Your task to perform on an android device: Clear the shopping cart on amazon.com. Add usb-c to usb-a to the cart on amazon.com Image 0: 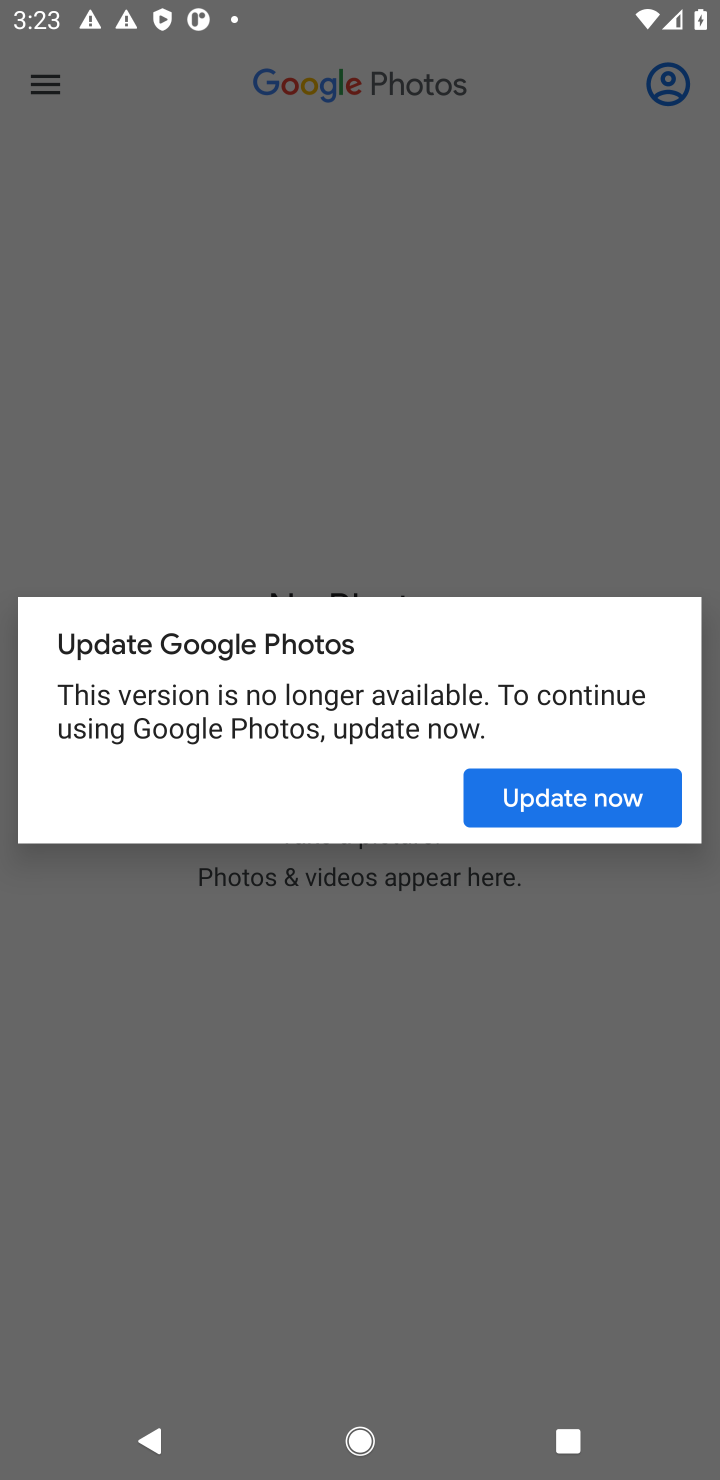
Step 0: press home button
Your task to perform on an android device: Clear the shopping cart on amazon.com. Add usb-c to usb-a to the cart on amazon.com Image 1: 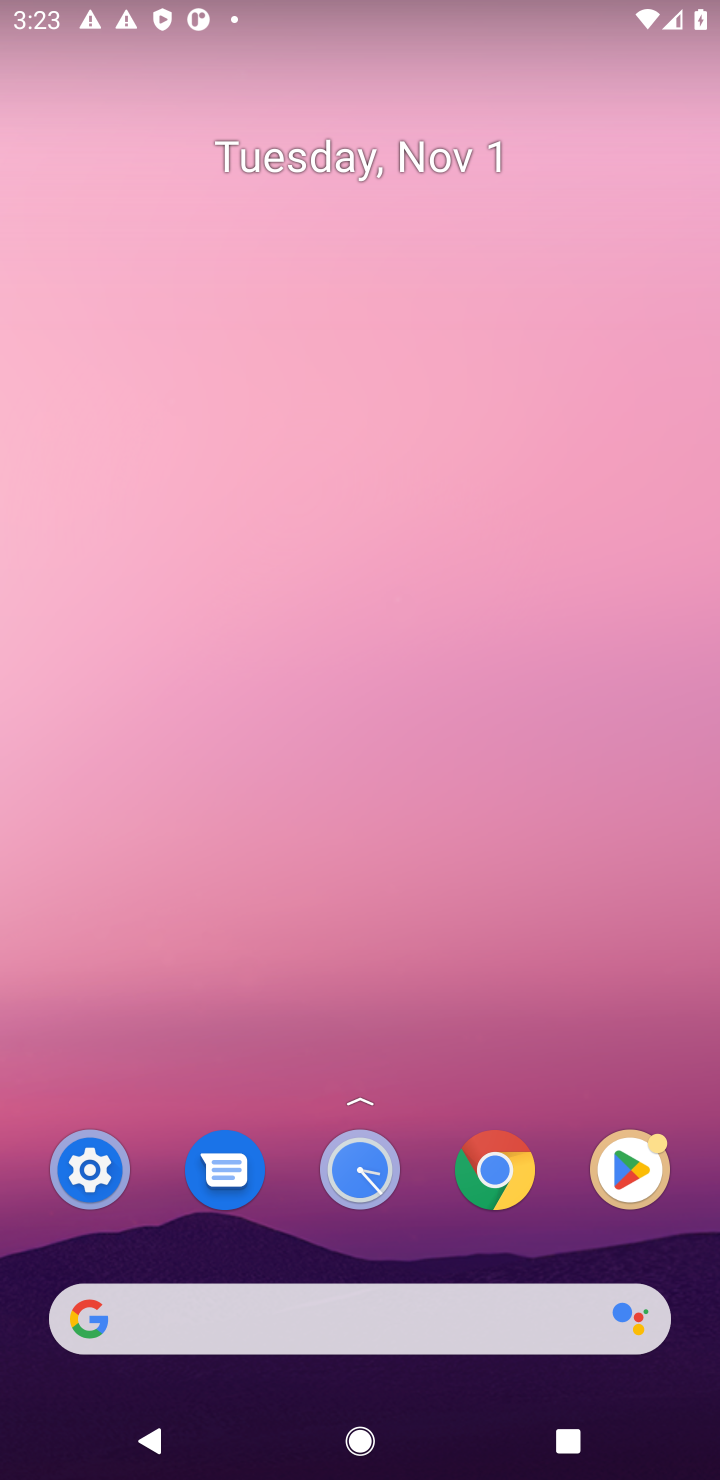
Step 1: drag from (428, 1407) to (591, 182)
Your task to perform on an android device: Clear the shopping cart on amazon.com. Add usb-c to usb-a to the cart on amazon.com Image 2: 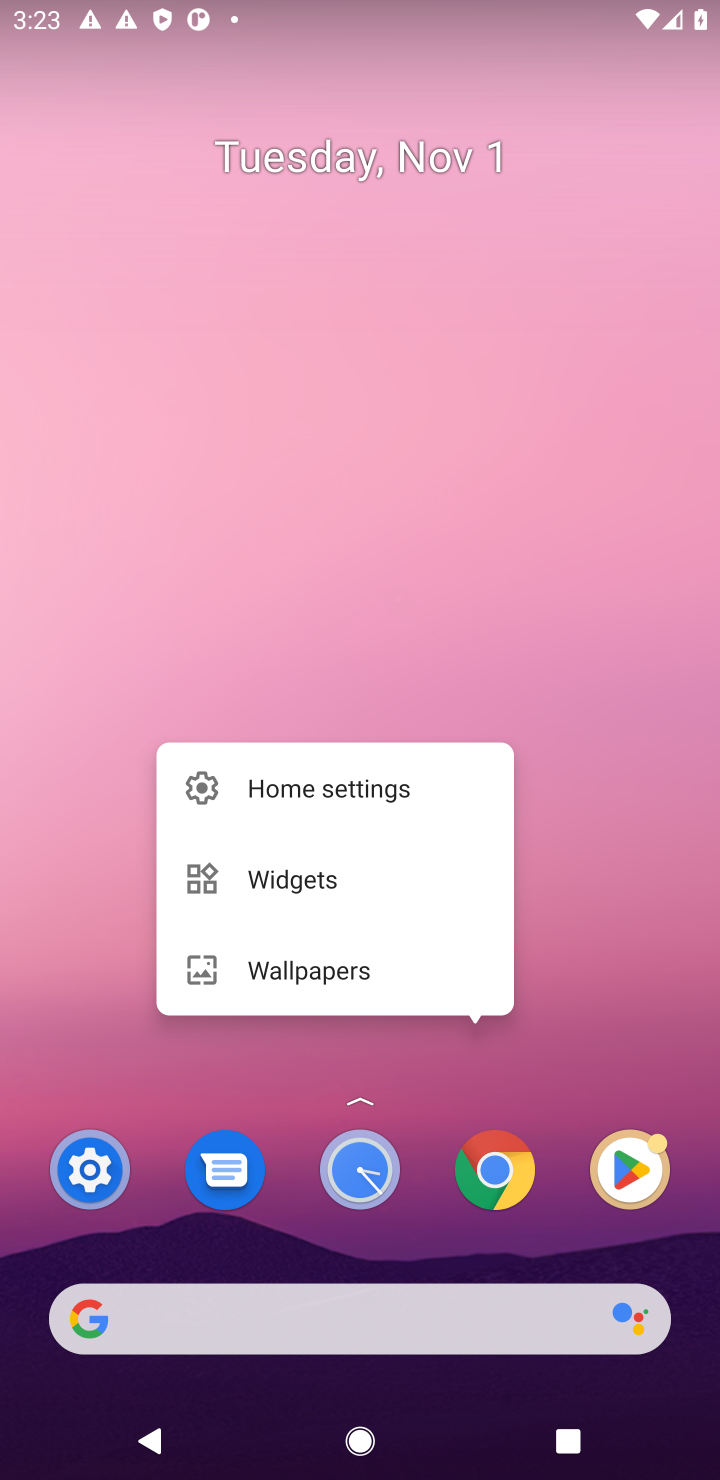
Step 2: click (626, 841)
Your task to perform on an android device: Clear the shopping cart on amazon.com. Add usb-c to usb-a to the cart on amazon.com Image 3: 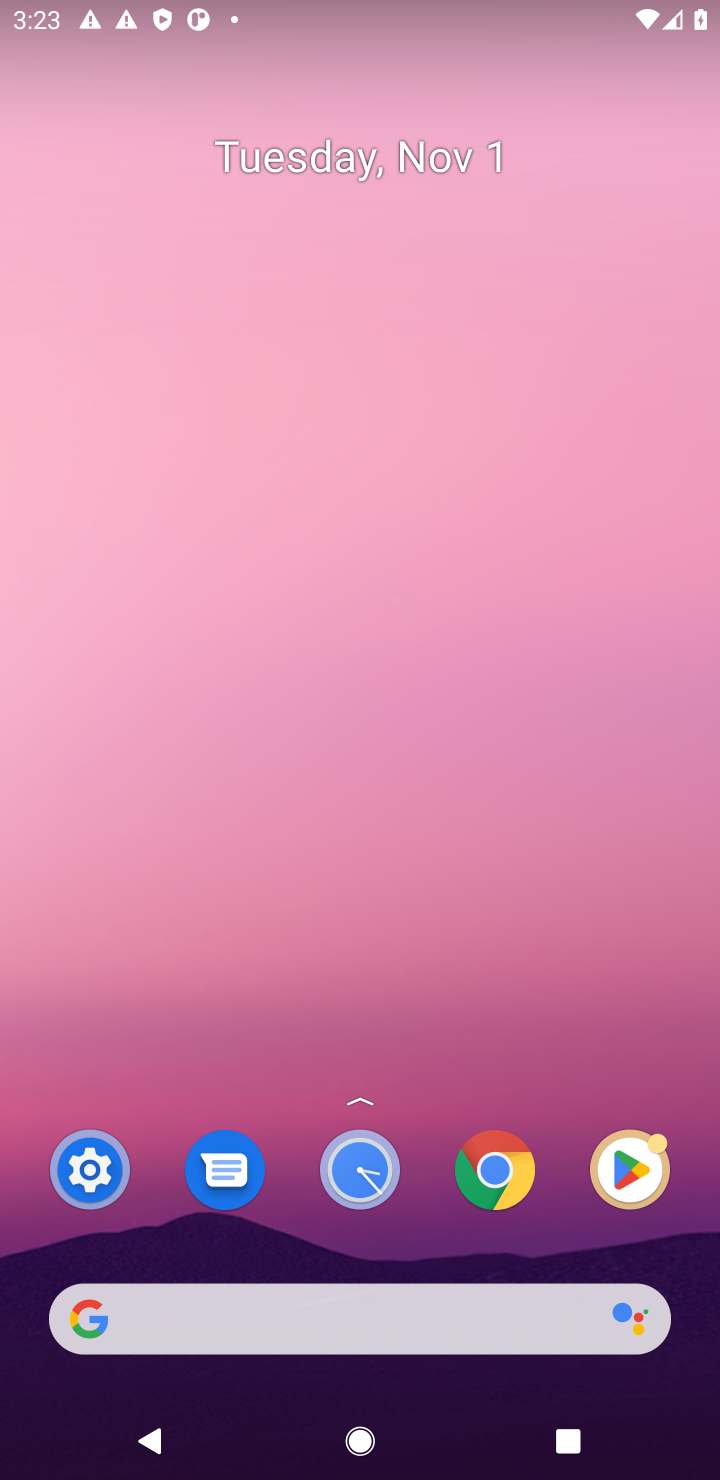
Step 3: drag from (472, 1397) to (456, 150)
Your task to perform on an android device: Clear the shopping cart on amazon.com. Add usb-c to usb-a to the cart on amazon.com Image 4: 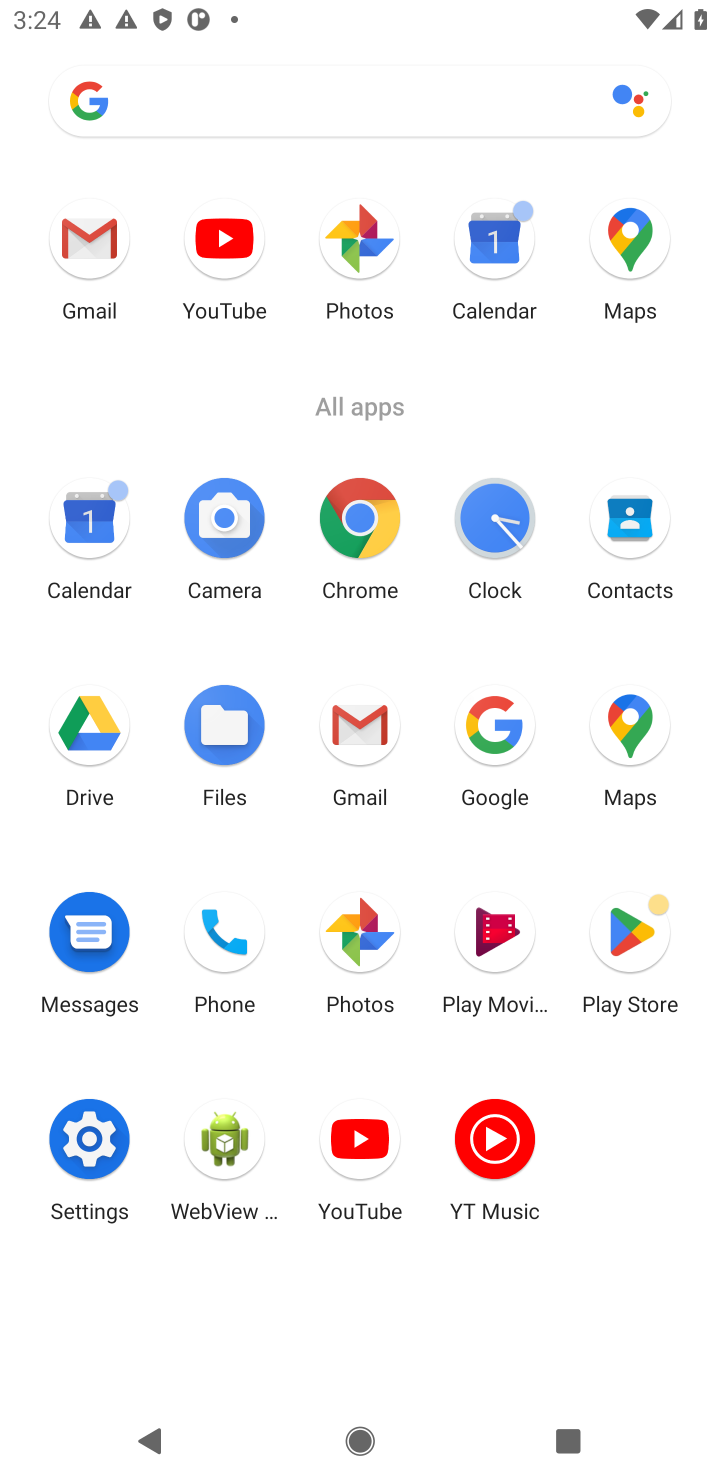
Step 4: click (364, 524)
Your task to perform on an android device: Clear the shopping cart on amazon.com. Add usb-c to usb-a to the cart on amazon.com Image 5: 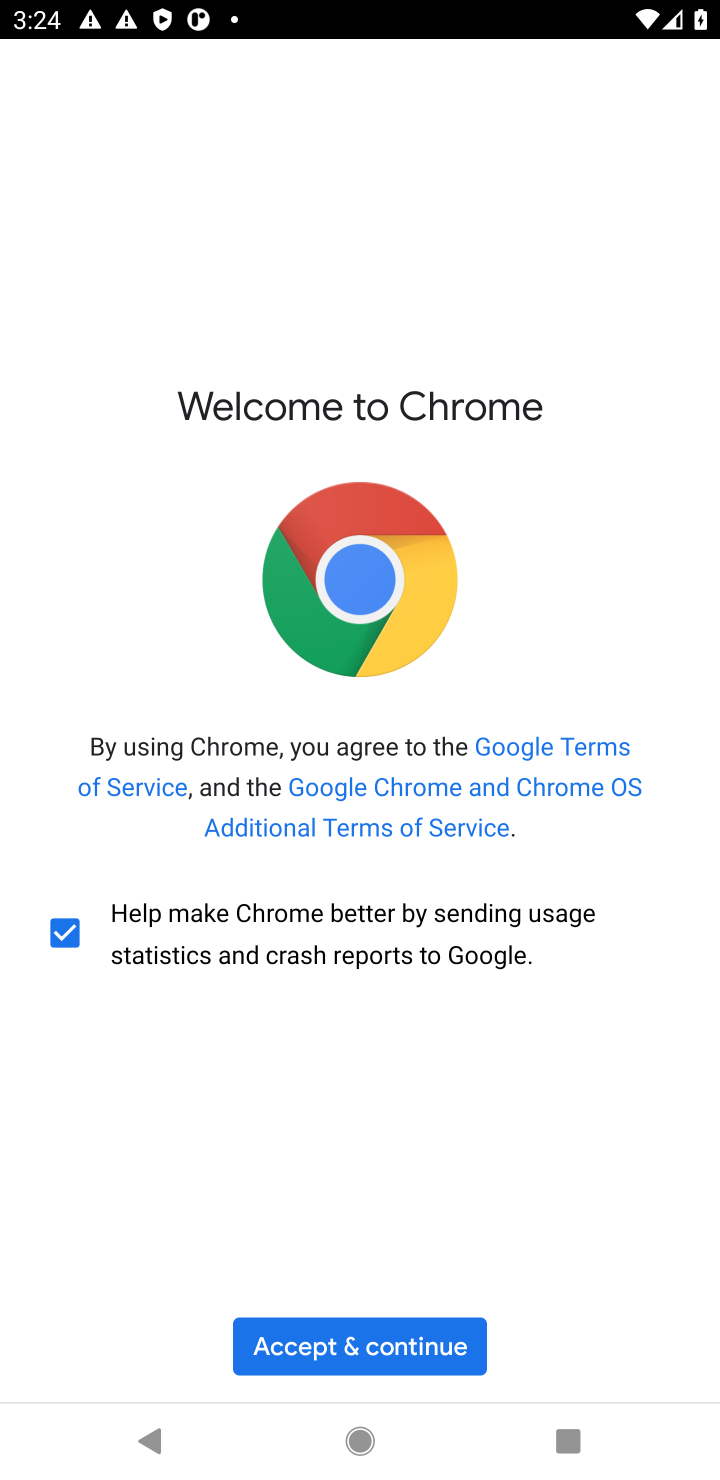
Step 5: click (342, 1341)
Your task to perform on an android device: Clear the shopping cart on amazon.com. Add usb-c to usb-a to the cart on amazon.com Image 6: 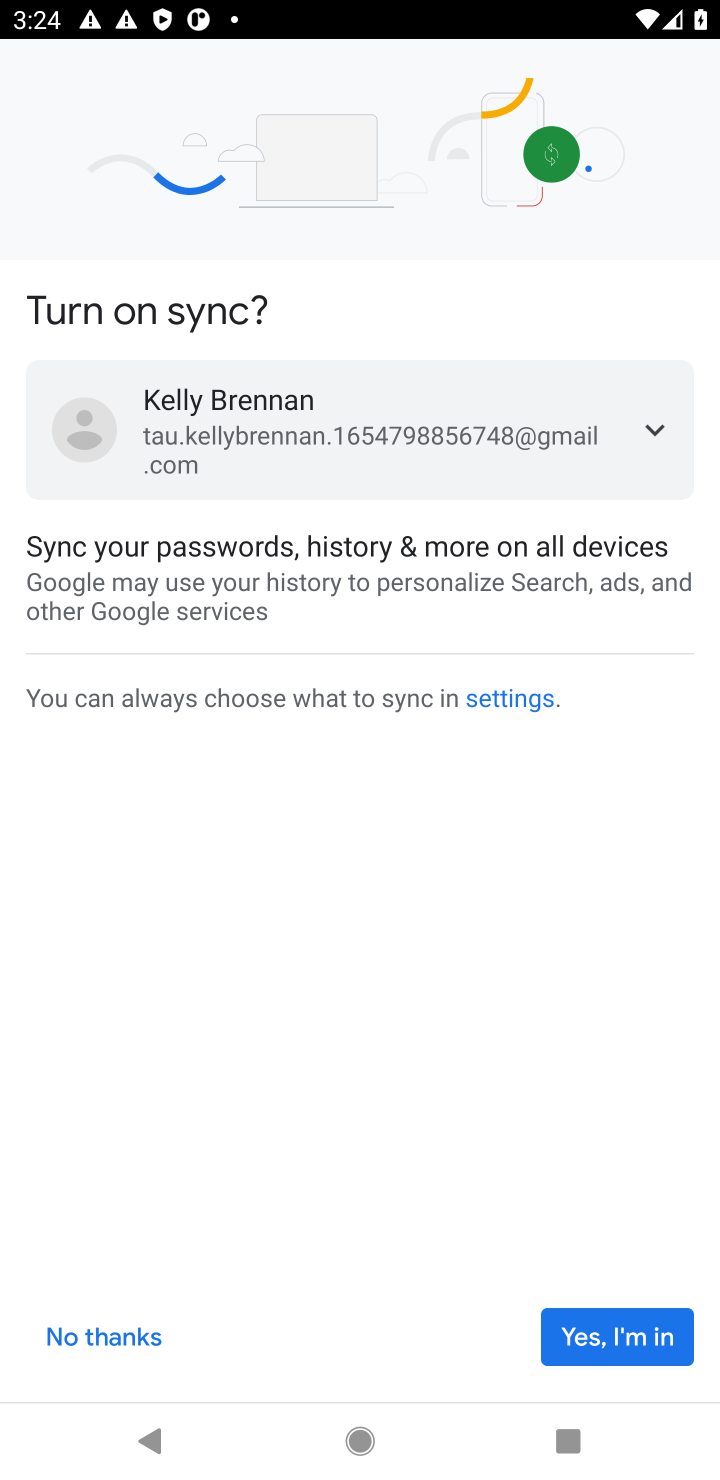
Step 6: click (584, 1327)
Your task to perform on an android device: Clear the shopping cart on amazon.com. Add usb-c to usb-a to the cart on amazon.com Image 7: 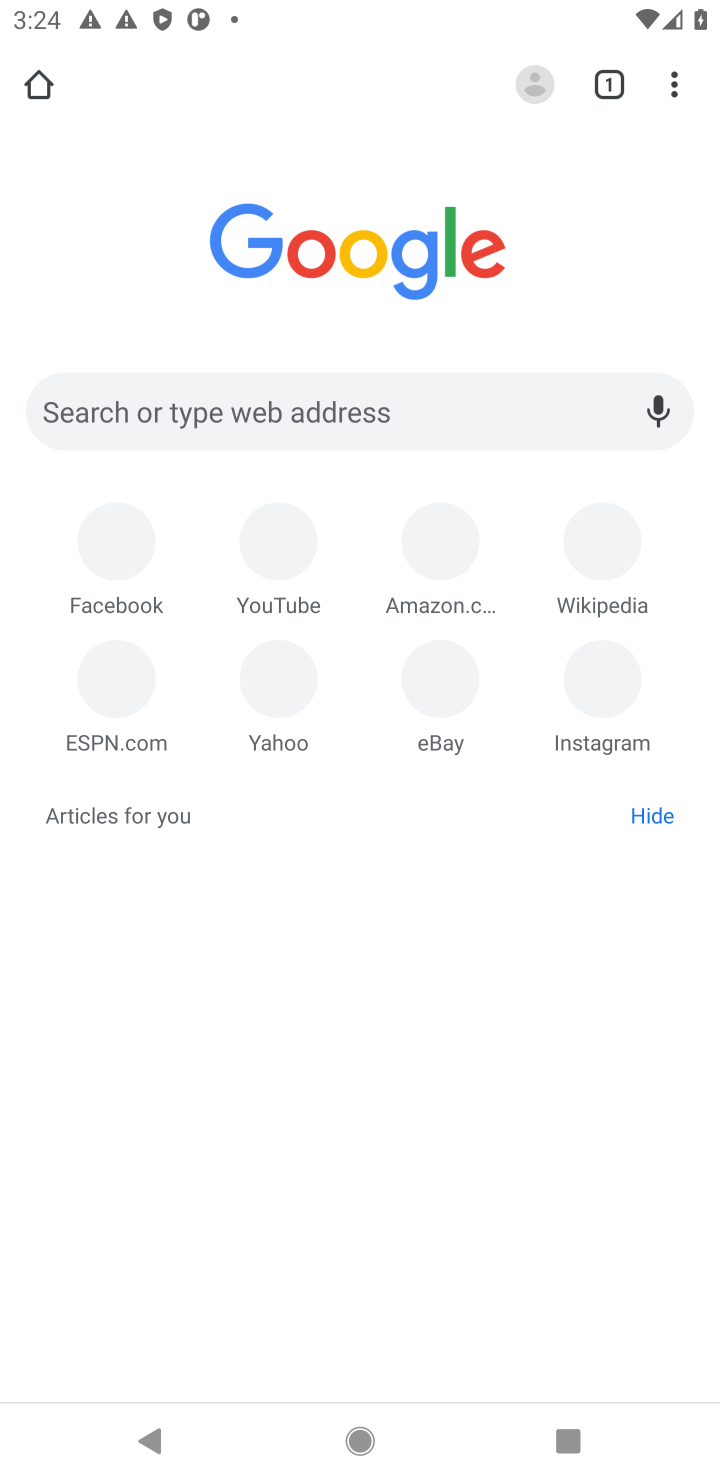
Step 7: click (281, 88)
Your task to perform on an android device: Clear the shopping cart on amazon.com. Add usb-c to usb-a to the cart on amazon.com Image 8: 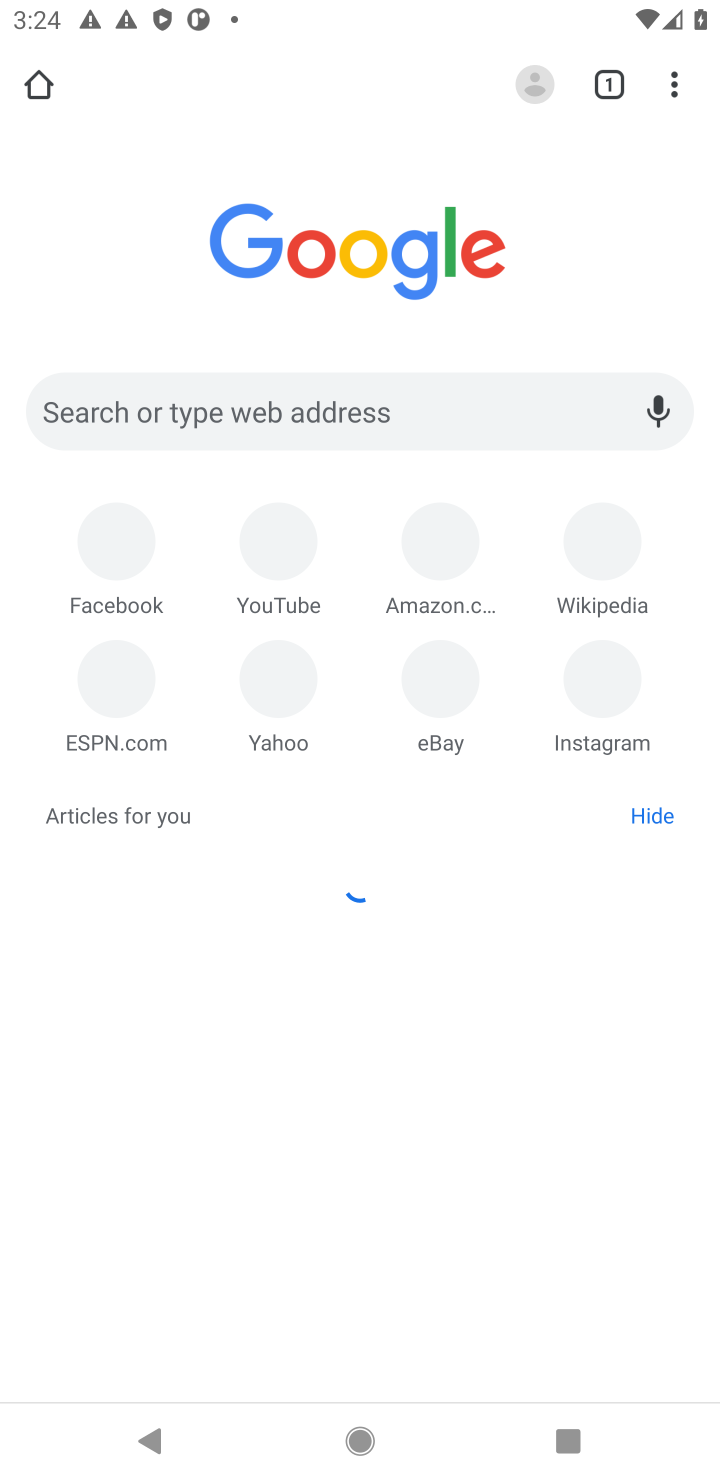
Step 8: click (405, 396)
Your task to perform on an android device: Clear the shopping cart on amazon.com. Add usb-c to usb-a to the cart on amazon.com Image 9: 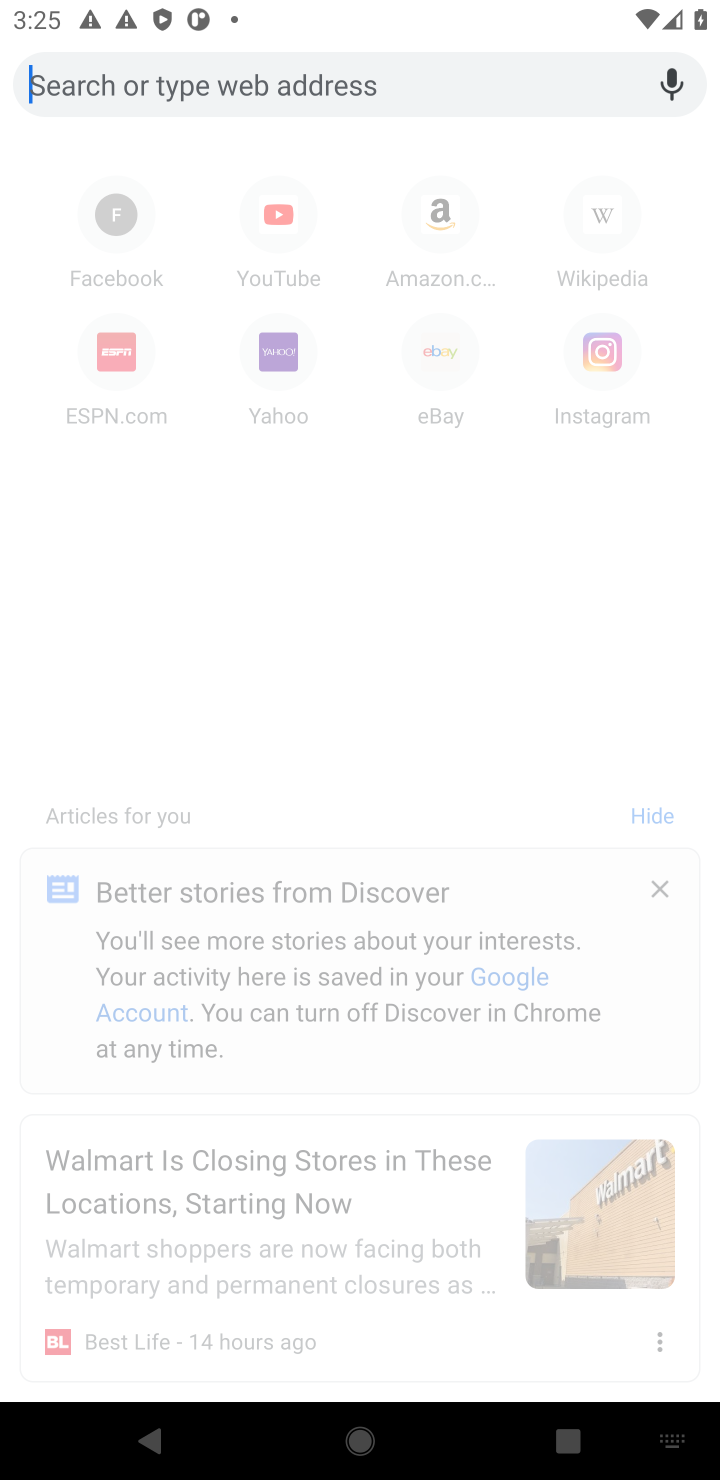
Step 9: type "amazon.com."
Your task to perform on an android device: Clear the shopping cart on amazon.com. Add usb-c to usb-a to the cart on amazon.com Image 10: 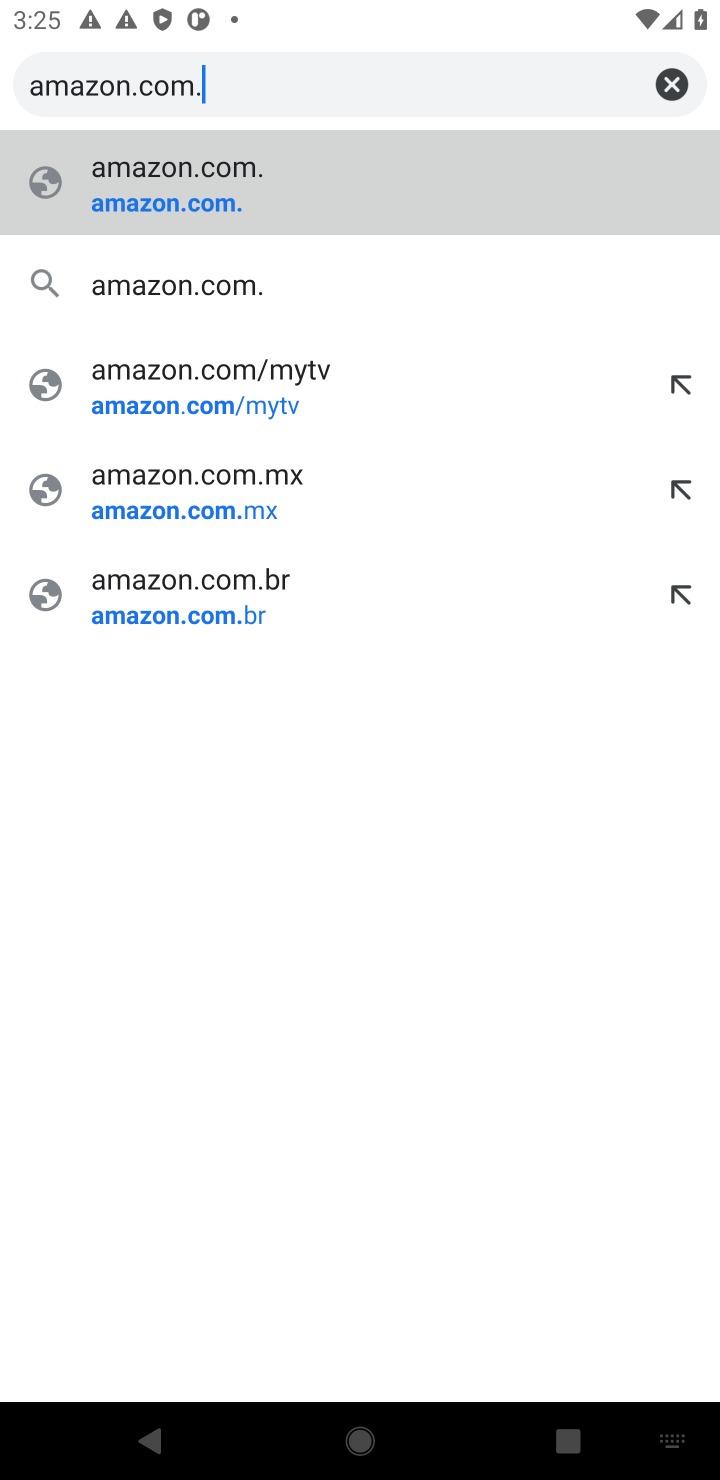
Step 10: click (142, 202)
Your task to perform on an android device: Clear the shopping cart on amazon.com. Add usb-c to usb-a to the cart on amazon.com Image 11: 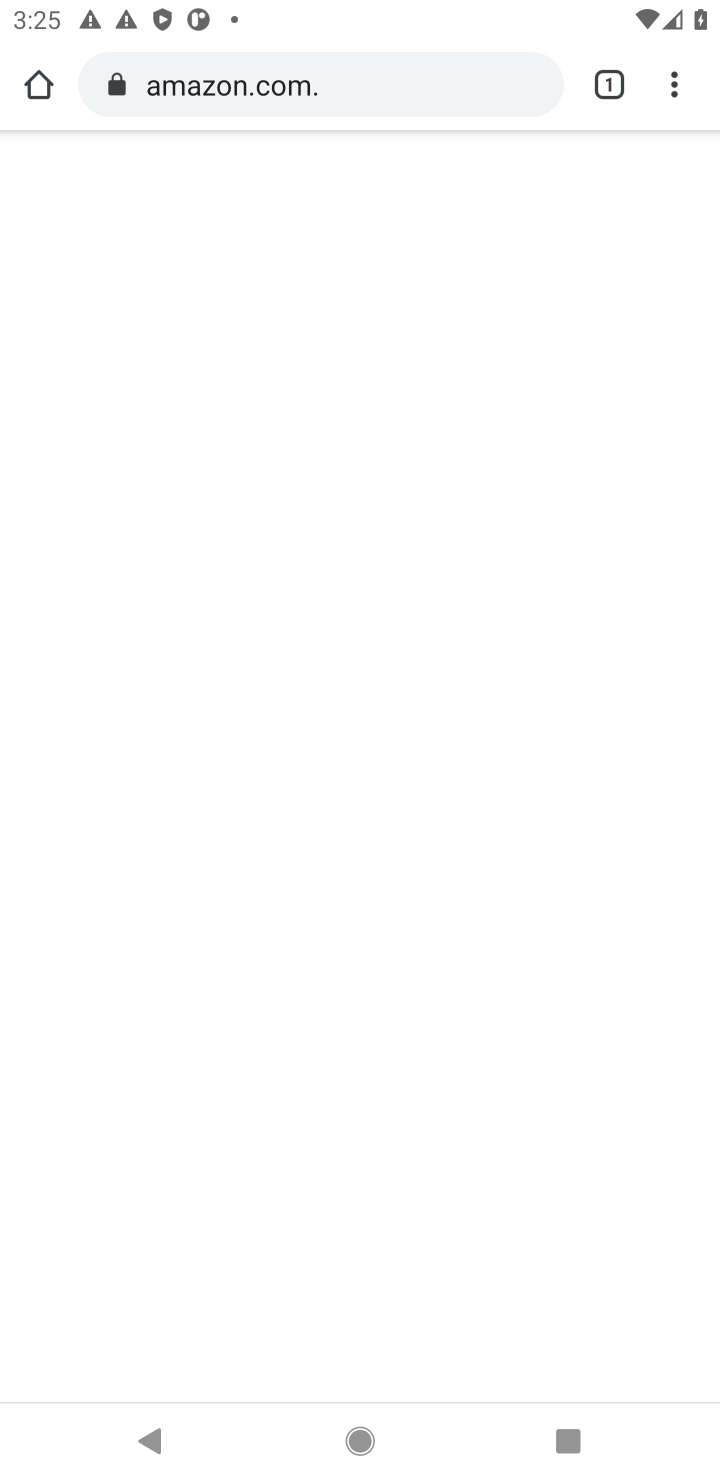
Step 11: click (318, 97)
Your task to perform on an android device: Clear the shopping cart on amazon.com. Add usb-c to usb-a to the cart on amazon.com Image 12: 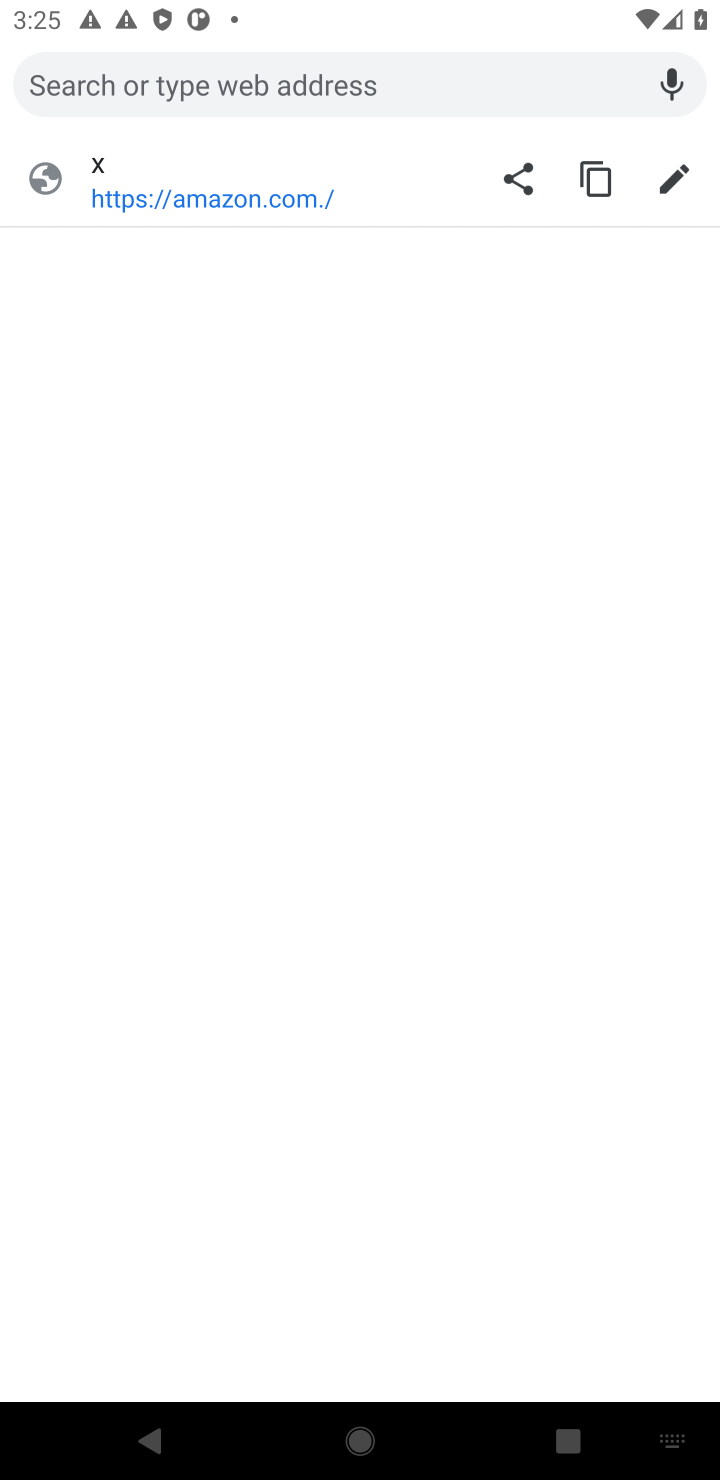
Step 12: type "amazon.com."
Your task to perform on an android device: Clear the shopping cart on amazon.com. Add usb-c to usb-a to the cart on amazon.com Image 13: 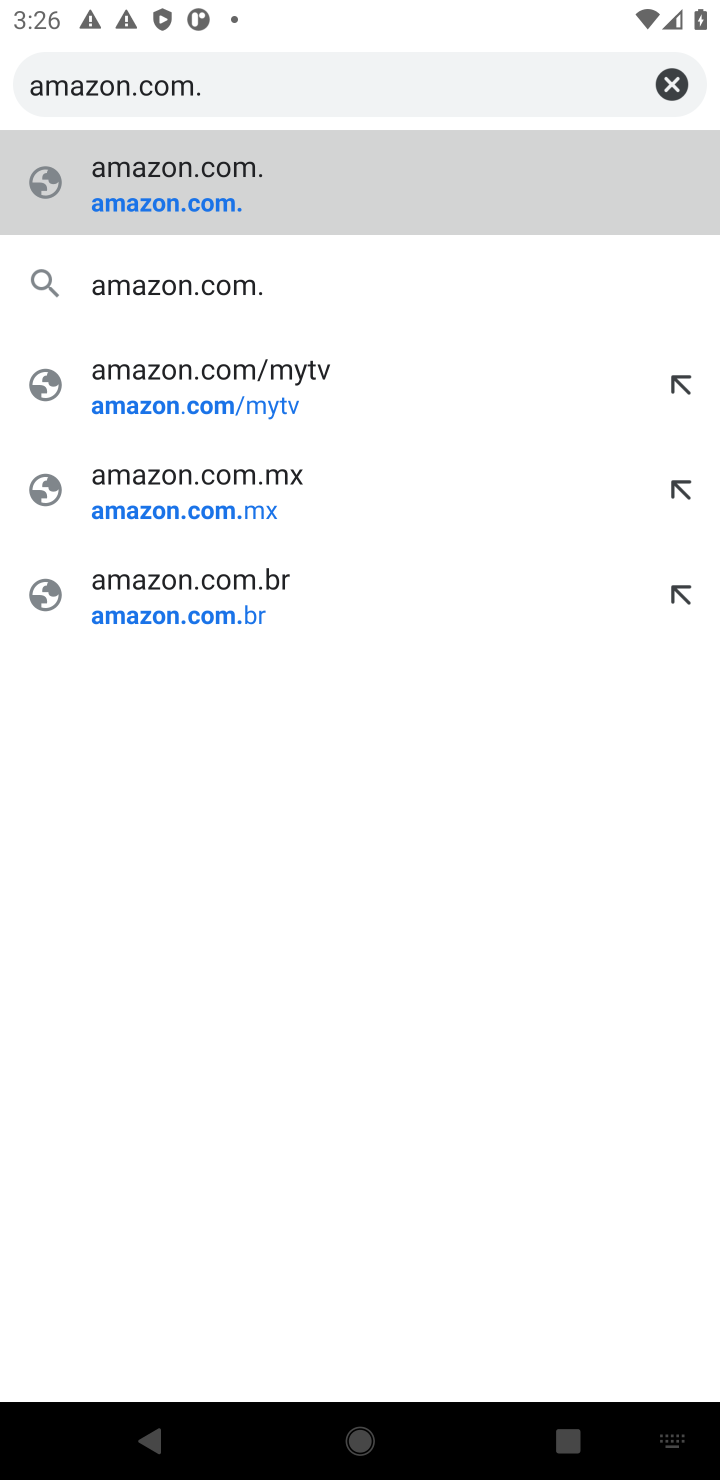
Step 13: click (120, 207)
Your task to perform on an android device: Clear the shopping cart on amazon.com. Add usb-c to usb-a to the cart on amazon.com Image 14: 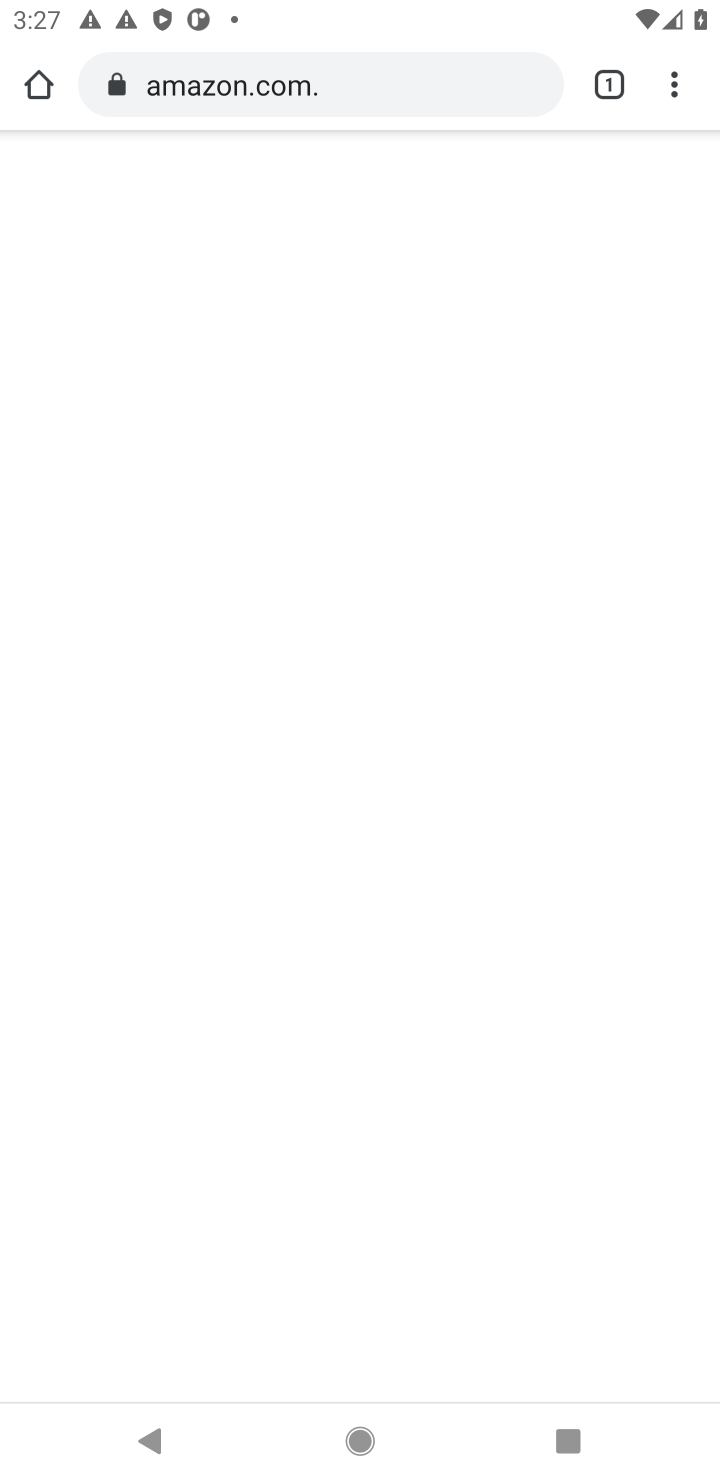
Step 14: task complete